Your task to perform on an android device: Show me popular videos on Youtube Image 0: 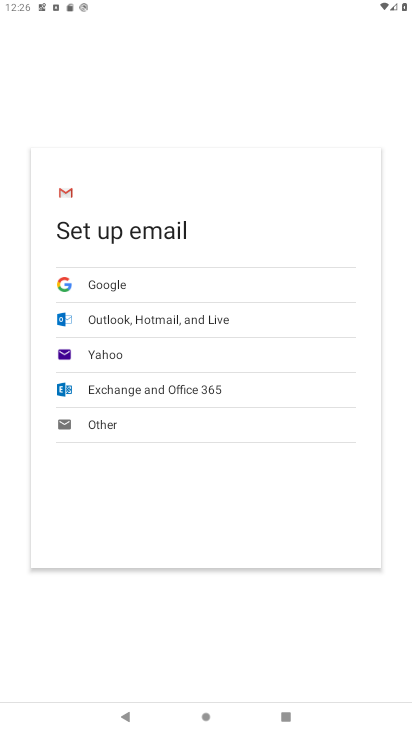
Step 0: press home button
Your task to perform on an android device: Show me popular videos on Youtube Image 1: 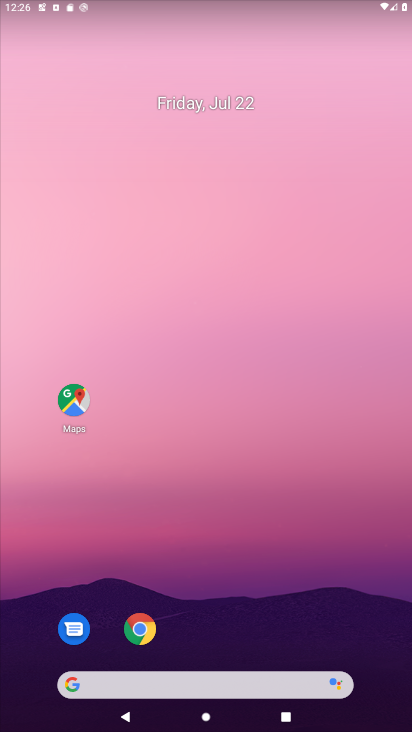
Step 1: drag from (238, 614) to (264, 146)
Your task to perform on an android device: Show me popular videos on Youtube Image 2: 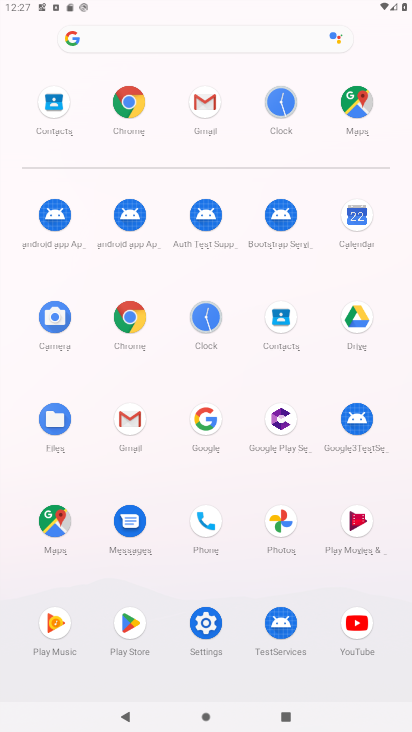
Step 2: click (357, 634)
Your task to perform on an android device: Show me popular videos on Youtube Image 3: 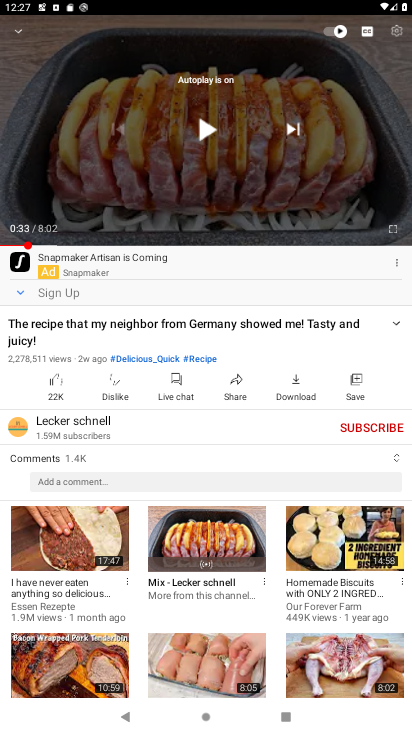
Step 3: press back button
Your task to perform on an android device: Show me popular videos on Youtube Image 4: 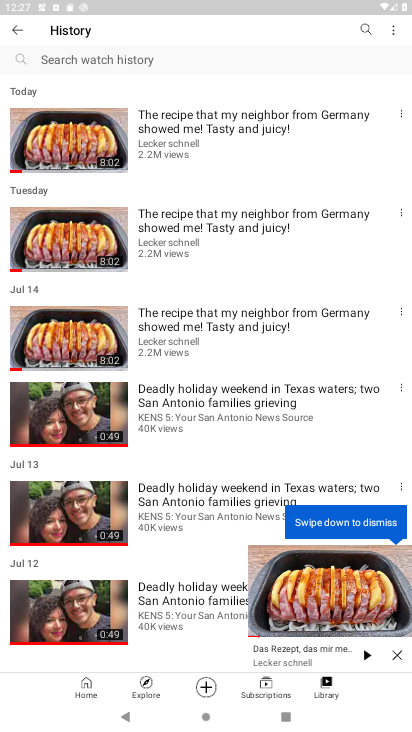
Step 4: click (395, 662)
Your task to perform on an android device: Show me popular videos on Youtube Image 5: 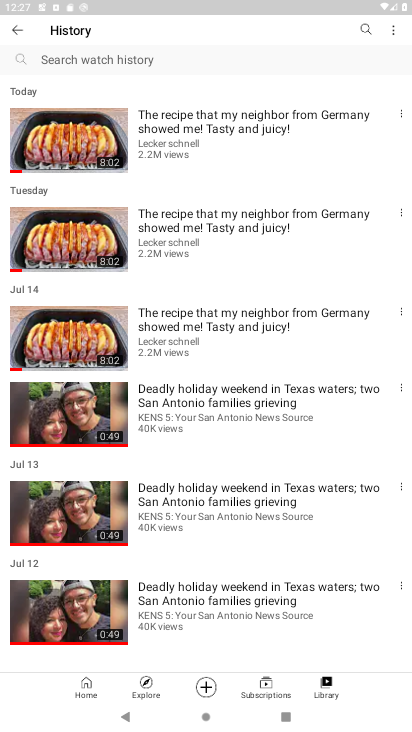
Step 5: click (75, 692)
Your task to perform on an android device: Show me popular videos on Youtube Image 6: 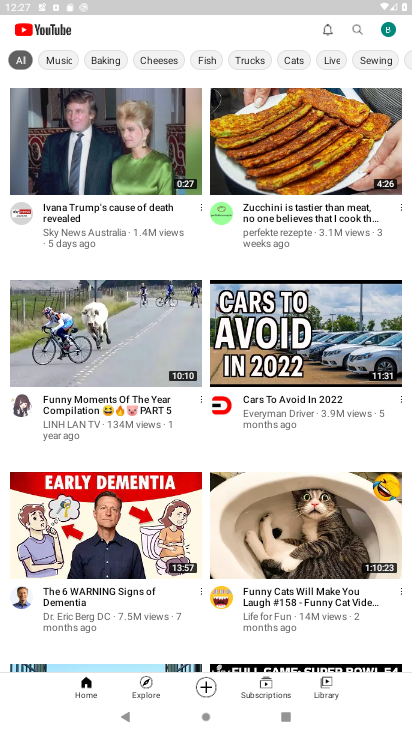
Step 6: task complete